Your task to perform on an android device: turn pop-ups on in chrome Image 0: 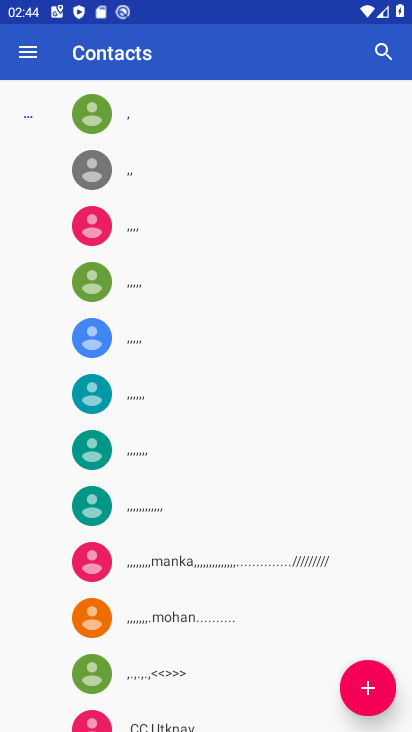
Step 0: press home button
Your task to perform on an android device: turn pop-ups on in chrome Image 1: 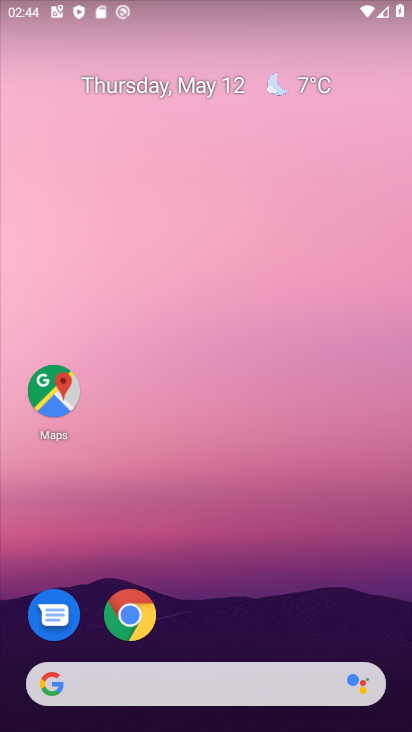
Step 1: click (133, 602)
Your task to perform on an android device: turn pop-ups on in chrome Image 2: 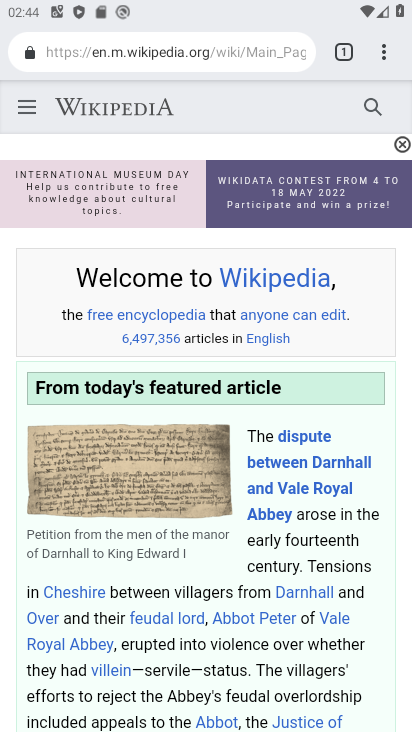
Step 2: drag from (380, 57) to (239, 636)
Your task to perform on an android device: turn pop-ups on in chrome Image 3: 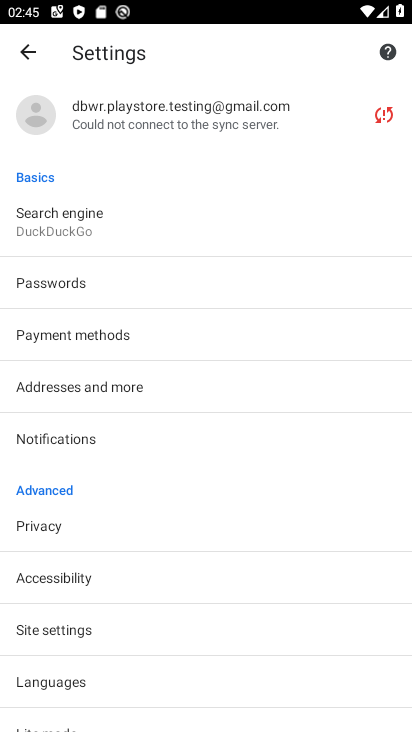
Step 3: click (114, 634)
Your task to perform on an android device: turn pop-ups on in chrome Image 4: 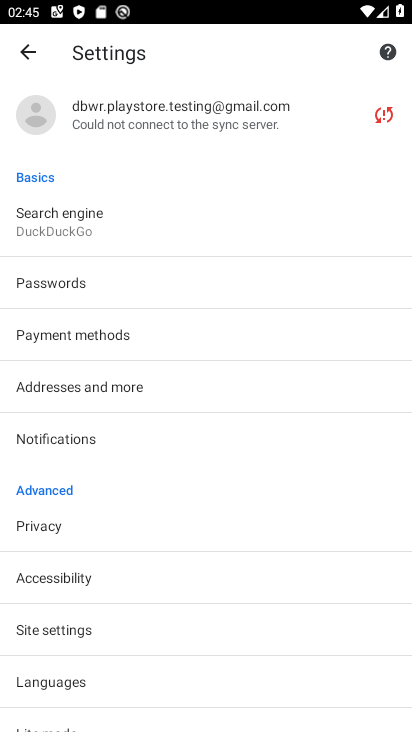
Step 4: click (114, 634)
Your task to perform on an android device: turn pop-ups on in chrome Image 5: 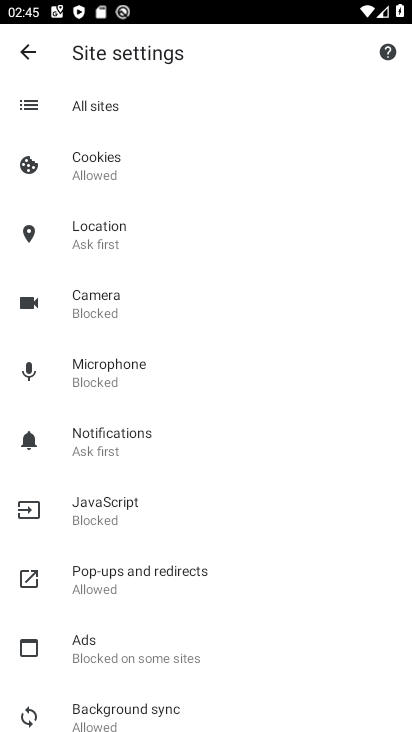
Step 5: click (121, 577)
Your task to perform on an android device: turn pop-ups on in chrome Image 6: 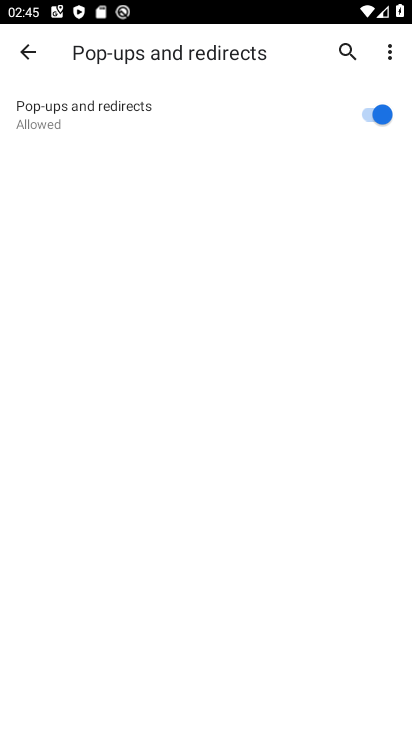
Step 6: task complete